Your task to perform on an android device: change timer sound Image 0: 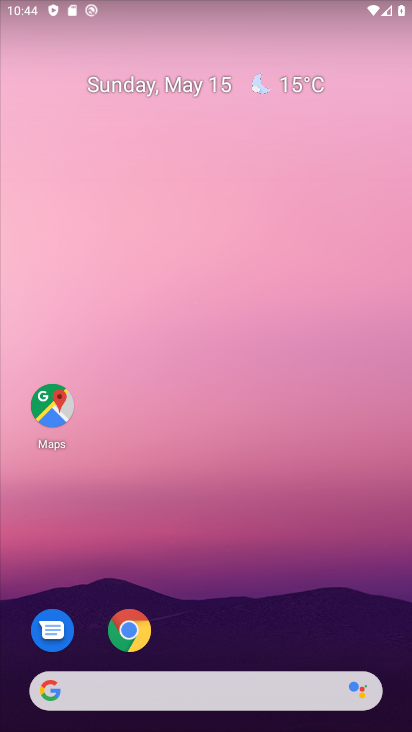
Step 0: drag from (203, 723) to (216, 227)
Your task to perform on an android device: change timer sound Image 1: 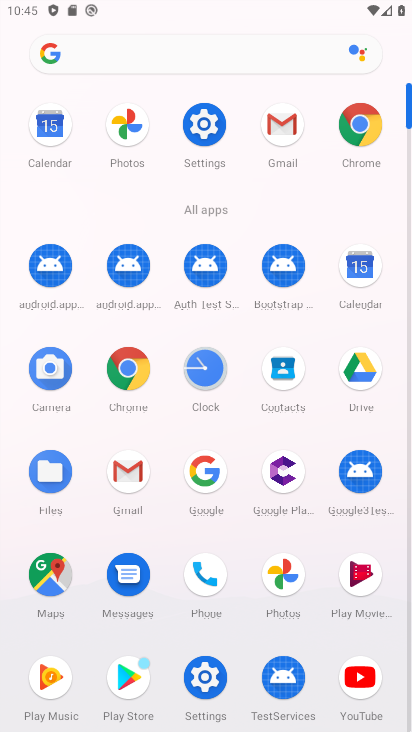
Step 1: click (207, 373)
Your task to perform on an android device: change timer sound Image 2: 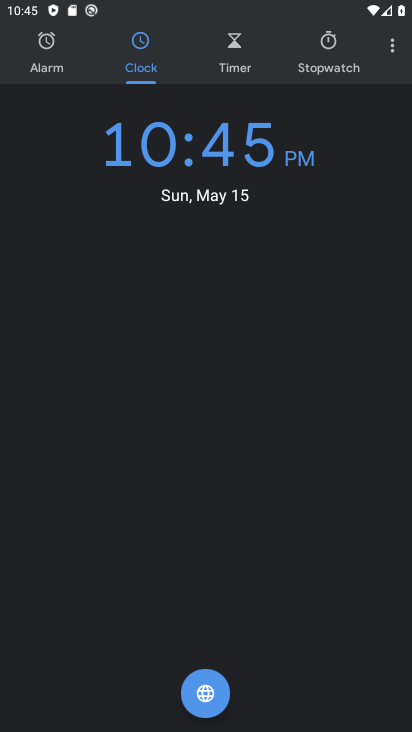
Step 2: click (396, 43)
Your task to perform on an android device: change timer sound Image 3: 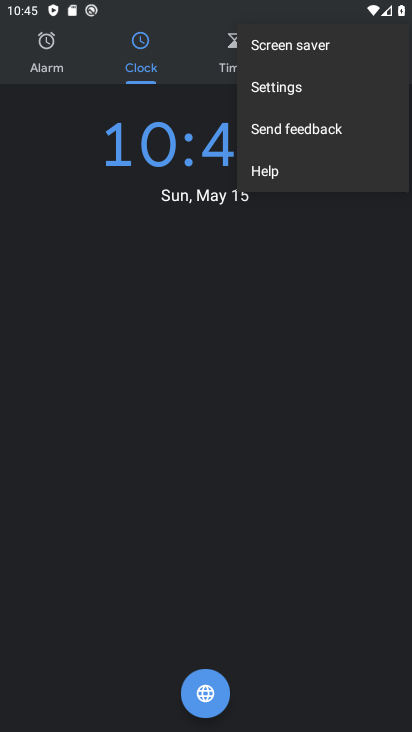
Step 3: click (285, 85)
Your task to perform on an android device: change timer sound Image 4: 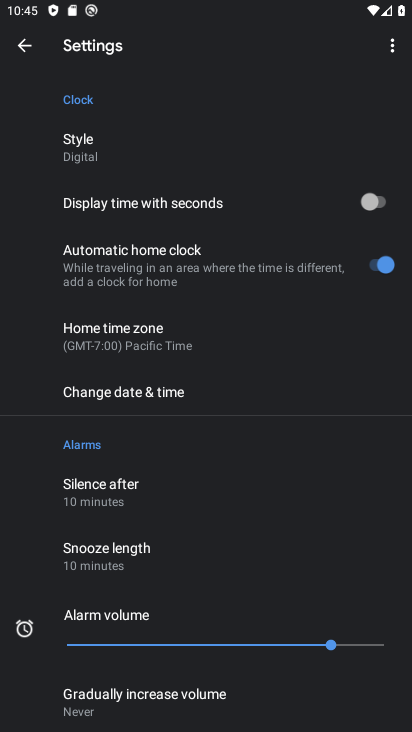
Step 4: click (98, 394)
Your task to perform on an android device: change timer sound Image 5: 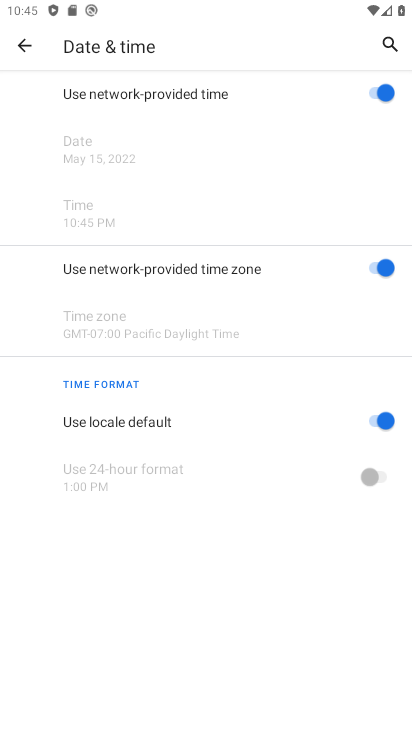
Step 5: click (24, 38)
Your task to perform on an android device: change timer sound Image 6: 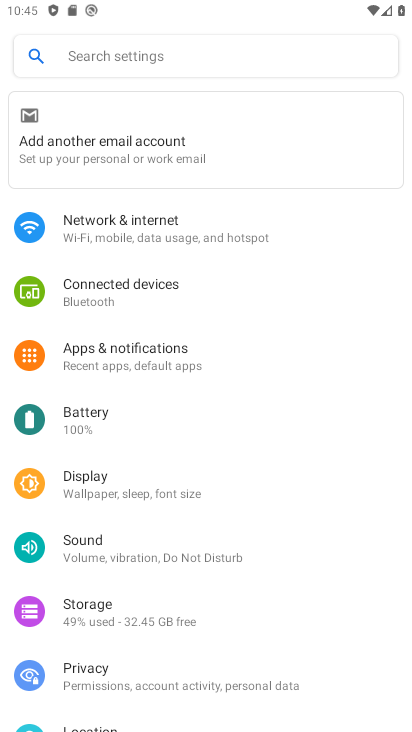
Step 6: press back button
Your task to perform on an android device: change timer sound Image 7: 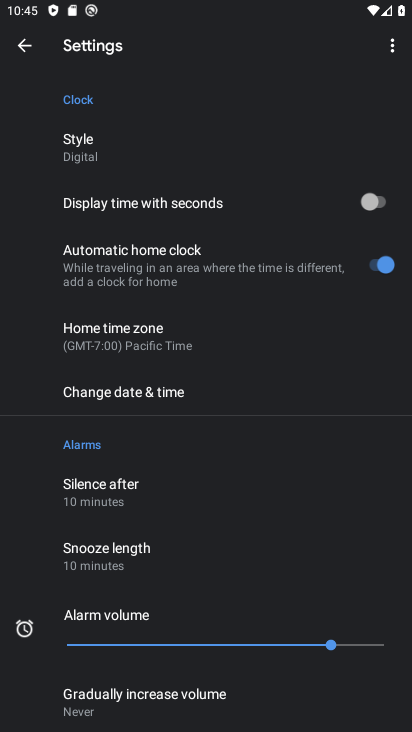
Step 7: drag from (115, 622) to (105, 312)
Your task to perform on an android device: change timer sound Image 8: 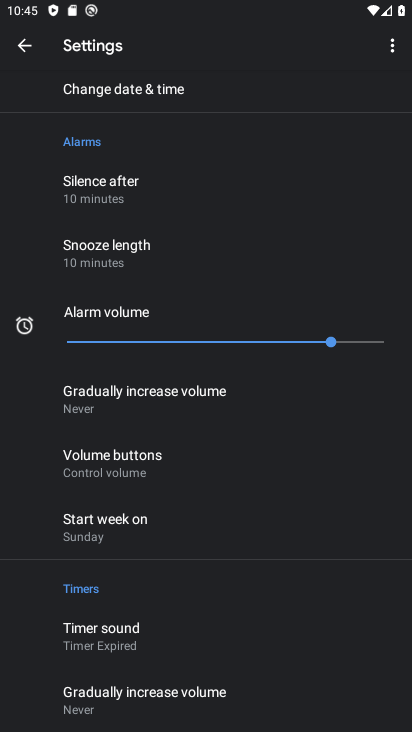
Step 8: click (115, 627)
Your task to perform on an android device: change timer sound Image 9: 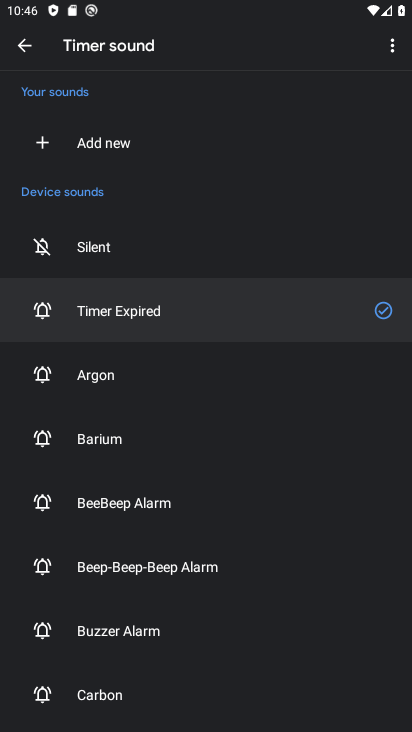
Step 9: click (113, 567)
Your task to perform on an android device: change timer sound Image 10: 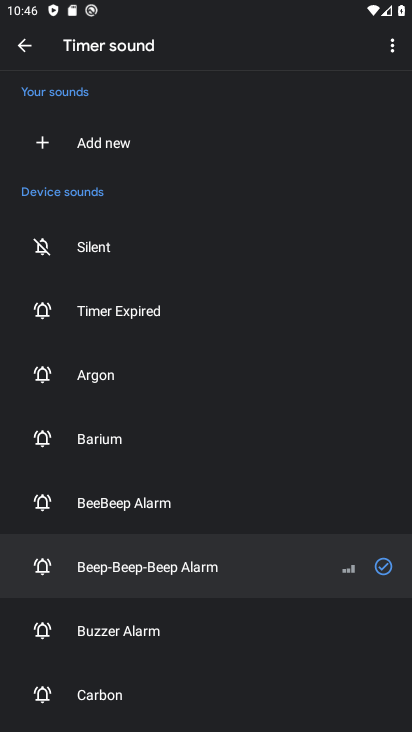
Step 10: task complete